Your task to perform on an android device: Is it going to rain today? Image 0: 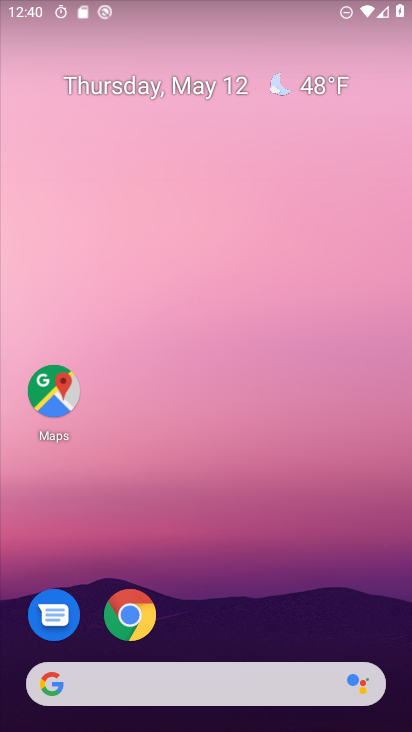
Step 0: click (334, 87)
Your task to perform on an android device: Is it going to rain today? Image 1: 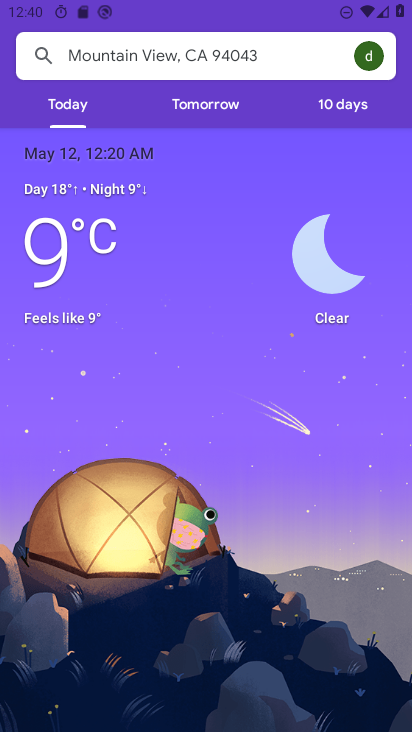
Step 1: task complete